Your task to perform on an android device: Go to settings Image 0: 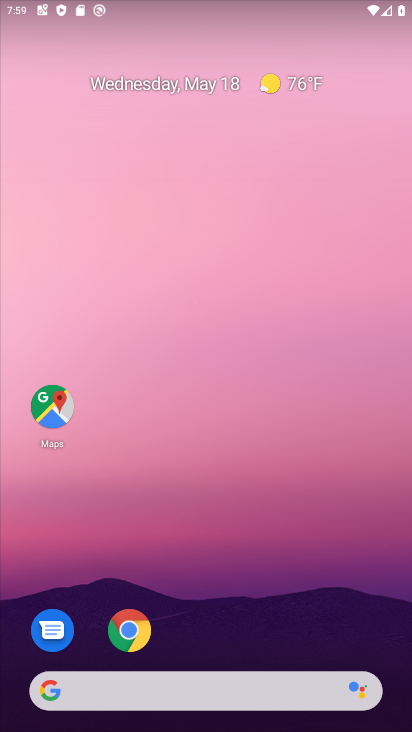
Step 0: drag from (197, 713) to (345, 41)
Your task to perform on an android device: Go to settings Image 1: 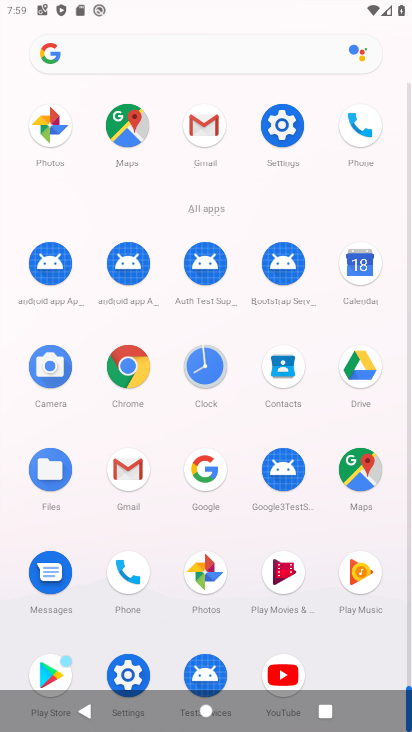
Step 1: click (285, 118)
Your task to perform on an android device: Go to settings Image 2: 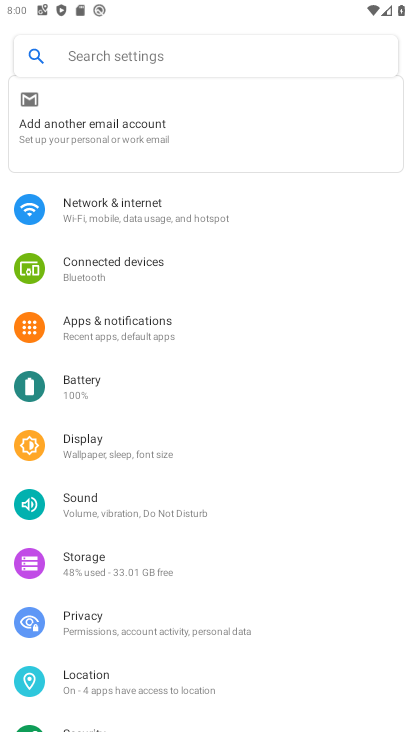
Step 2: task complete